Your task to perform on an android device: turn smart compose on in the gmail app Image 0: 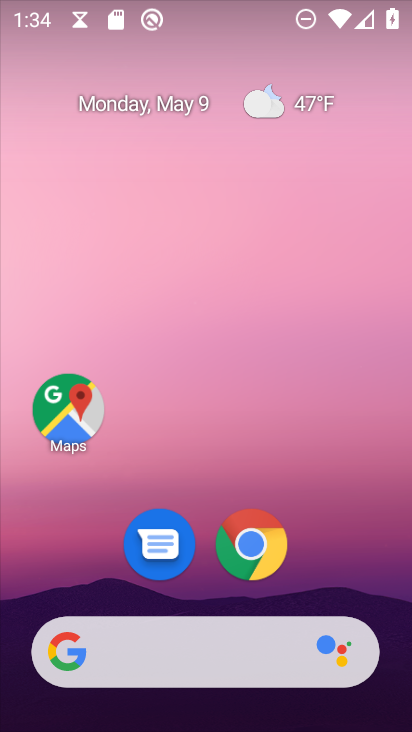
Step 0: drag from (354, 557) to (339, 129)
Your task to perform on an android device: turn smart compose on in the gmail app Image 1: 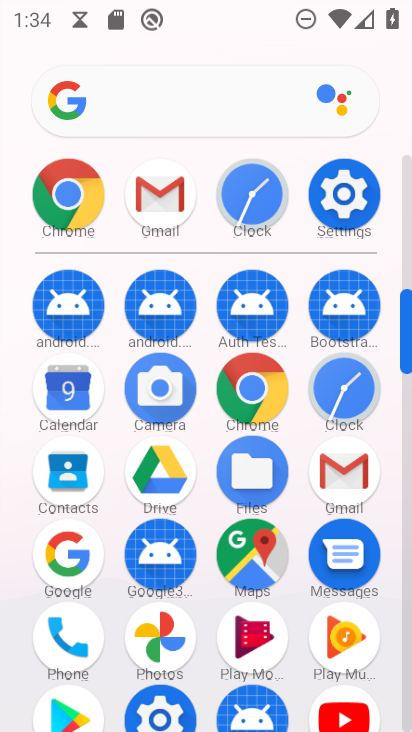
Step 1: click (146, 211)
Your task to perform on an android device: turn smart compose on in the gmail app Image 2: 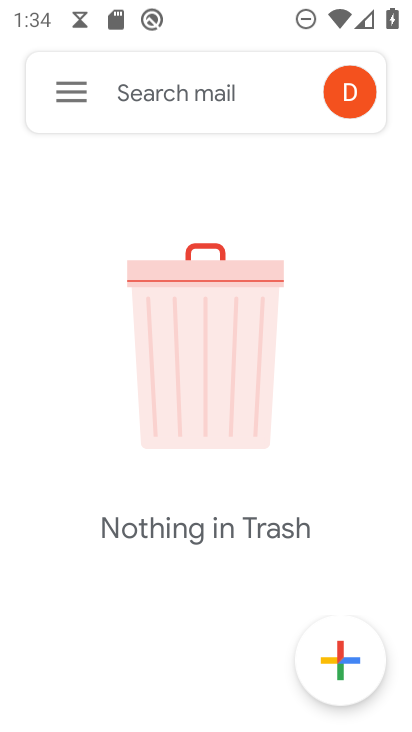
Step 2: click (63, 90)
Your task to perform on an android device: turn smart compose on in the gmail app Image 3: 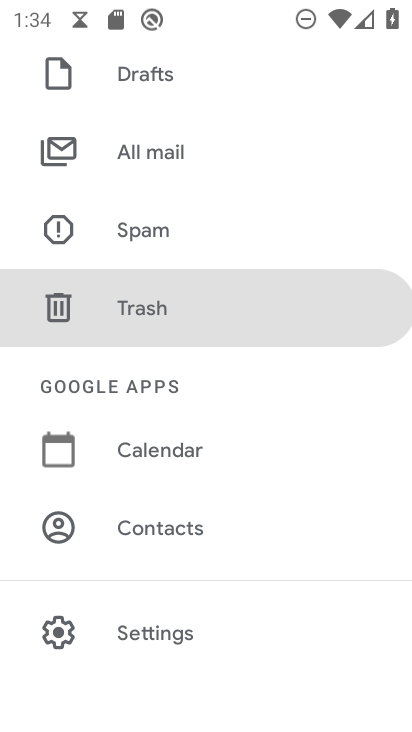
Step 3: click (156, 619)
Your task to perform on an android device: turn smart compose on in the gmail app Image 4: 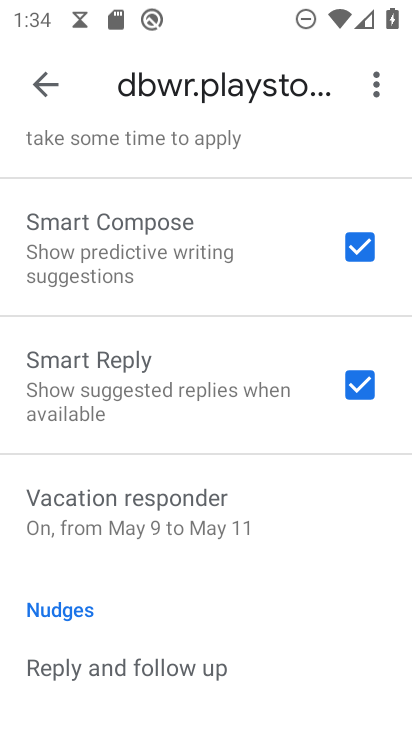
Step 4: task complete